Your task to perform on an android device: set default search engine in the chrome app Image 0: 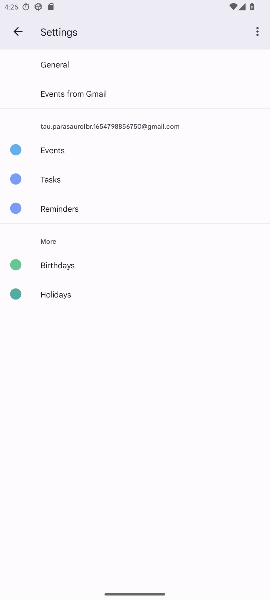
Step 0: press home button
Your task to perform on an android device: set default search engine in the chrome app Image 1: 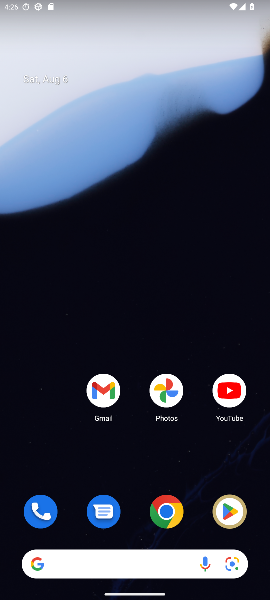
Step 1: click (171, 506)
Your task to perform on an android device: set default search engine in the chrome app Image 2: 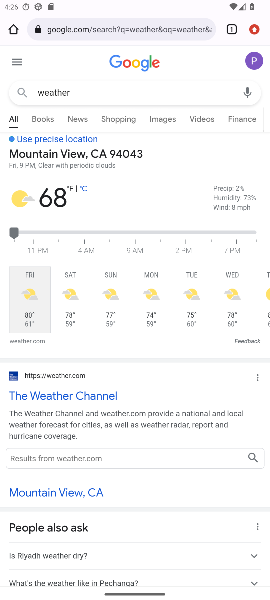
Step 2: click (255, 27)
Your task to perform on an android device: set default search engine in the chrome app Image 3: 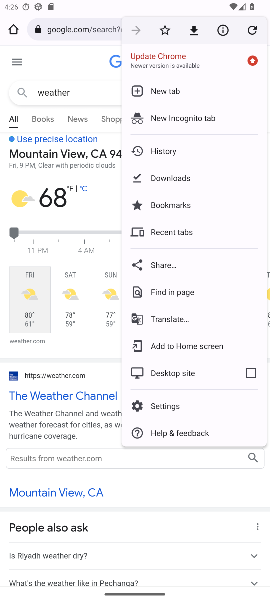
Step 3: click (170, 399)
Your task to perform on an android device: set default search engine in the chrome app Image 4: 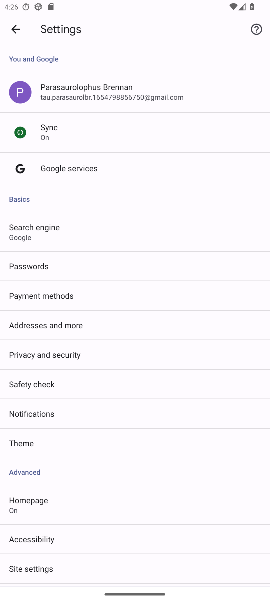
Step 4: click (52, 235)
Your task to perform on an android device: set default search engine in the chrome app Image 5: 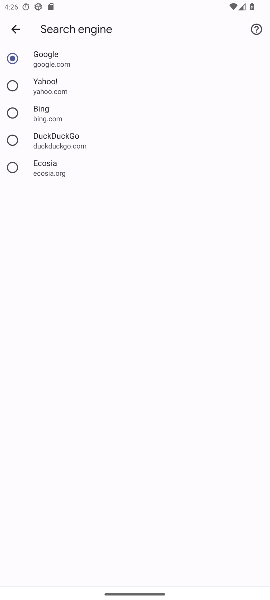
Step 5: task complete